Your task to perform on an android device: Open Maps and search for coffee Image 0: 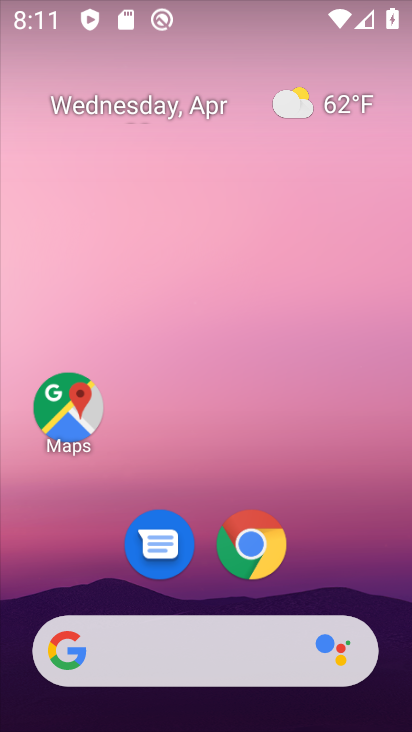
Step 0: click (77, 407)
Your task to perform on an android device: Open Maps and search for coffee Image 1: 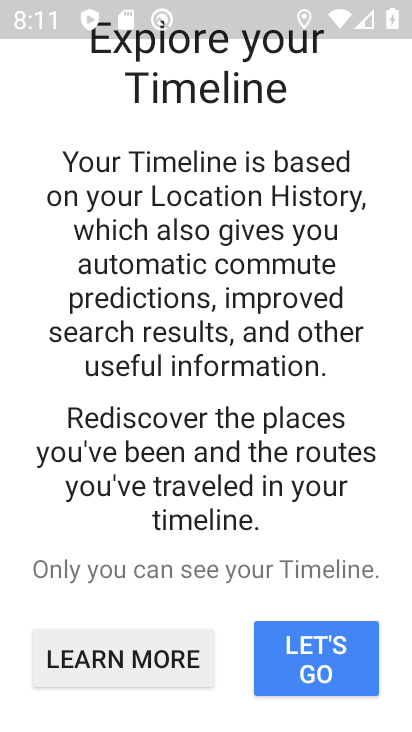
Step 1: press back button
Your task to perform on an android device: Open Maps and search for coffee Image 2: 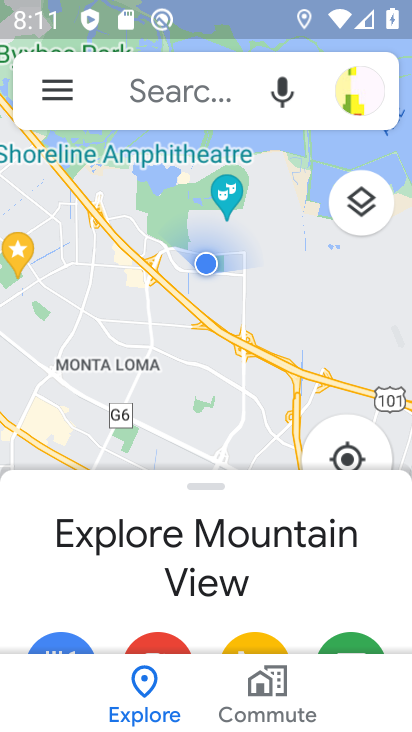
Step 2: click (169, 93)
Your task to perform on an android device: Open Maps and search for coffee Image 3: 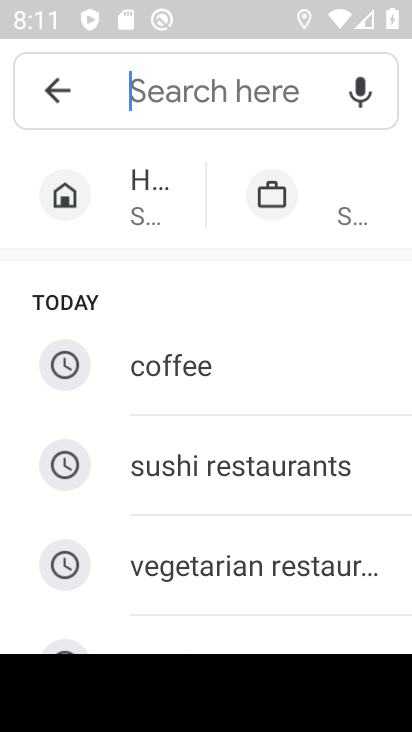
Step 3: click (160, 370)
Your task to perform on an android device: Open Maps and search for coffee Image 4: 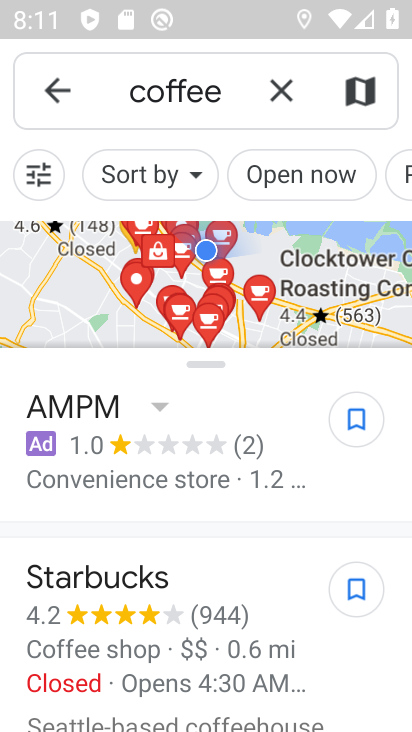
Step 4: task complete